Your task to perform on an android device: Find coffee shops on Maps Image 0: 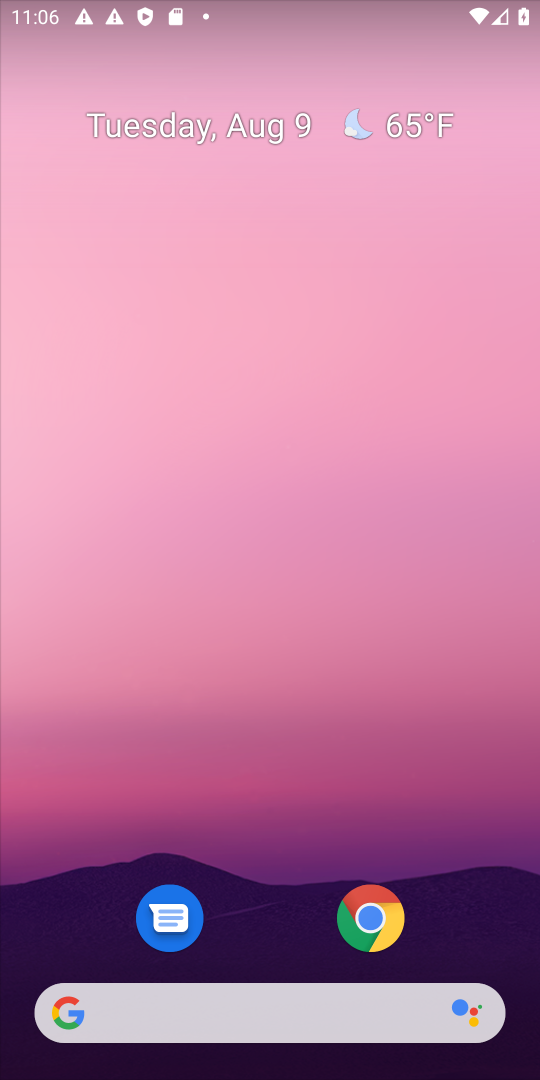
Step 0: drag from (285, 776) to (321, 63)
Your task to perform on an android device: Find coffee shops on Maps Image 1: 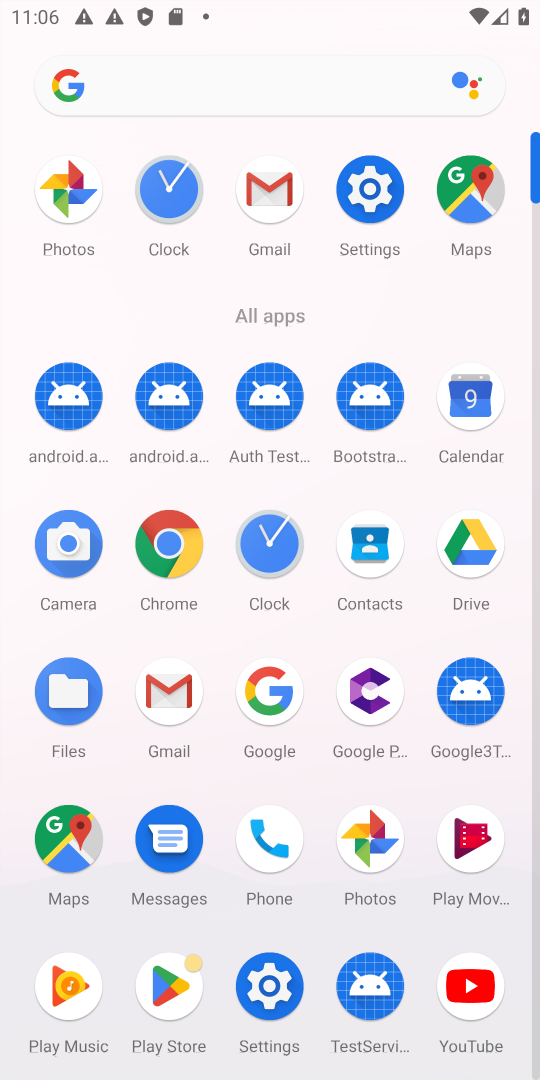
Step 1: click (71, 844)
Your task to perform on an android device: Find coffee shops on Maps Image 2: 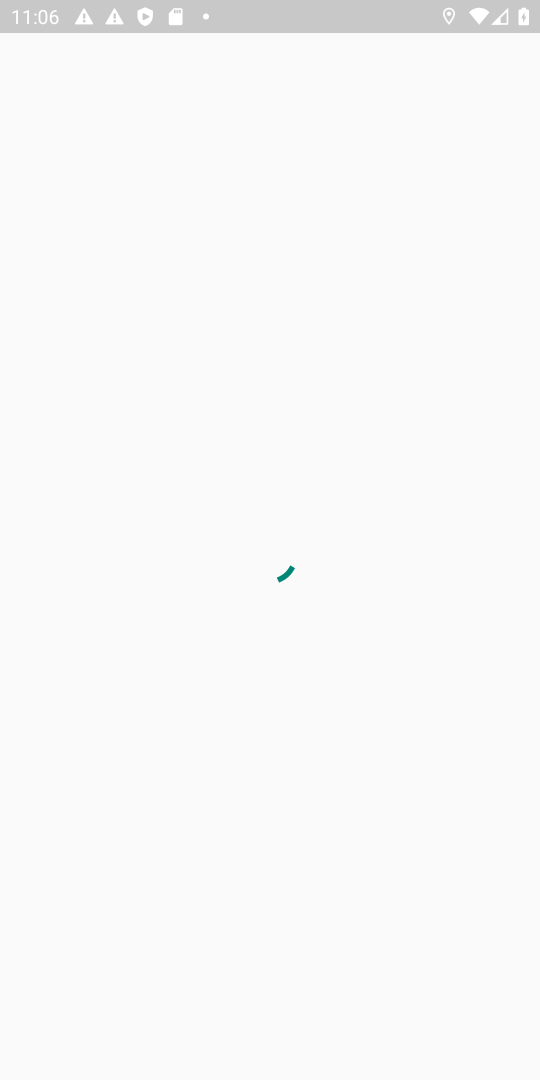
Step 2: press back button
Your task to perform on an android device: Find coffee shops on Maps Image 3: 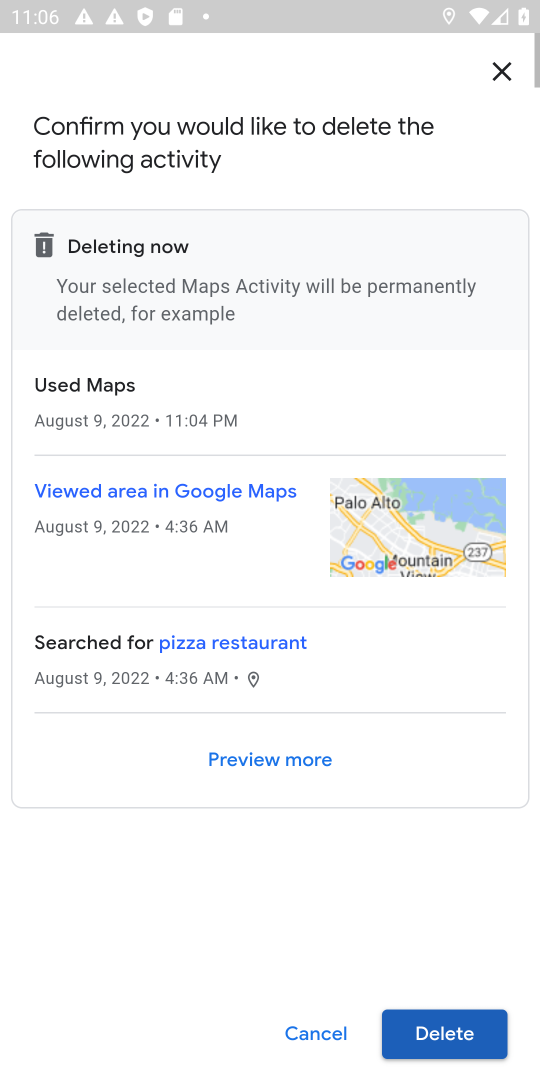
Step 3: press back button
Your task to perform on an android device: Find coffee shops on Maps Image 4: 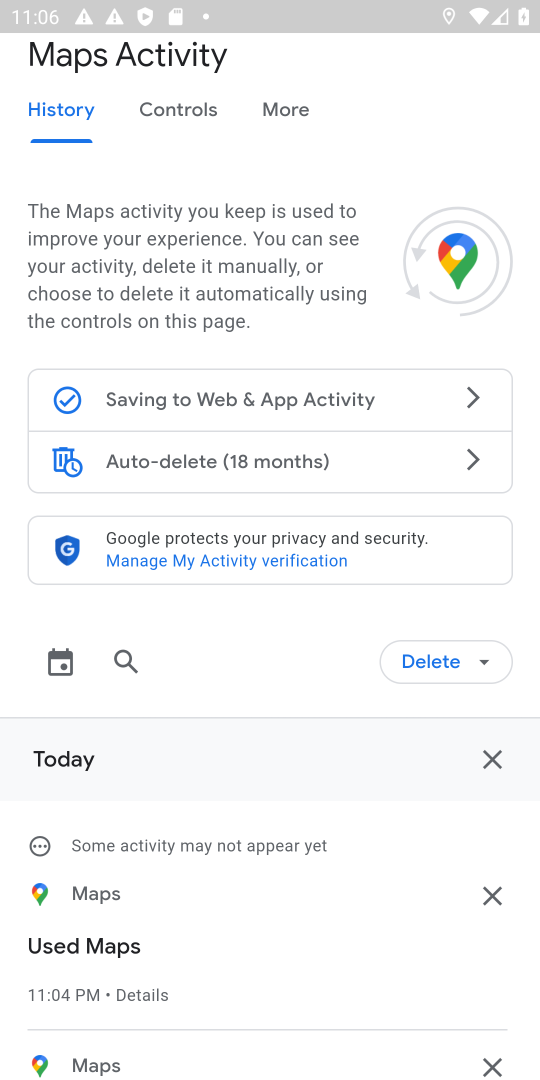
Step 4: press back button
Your task to perform on an android device: Find coffee shops on Maps Image 5: 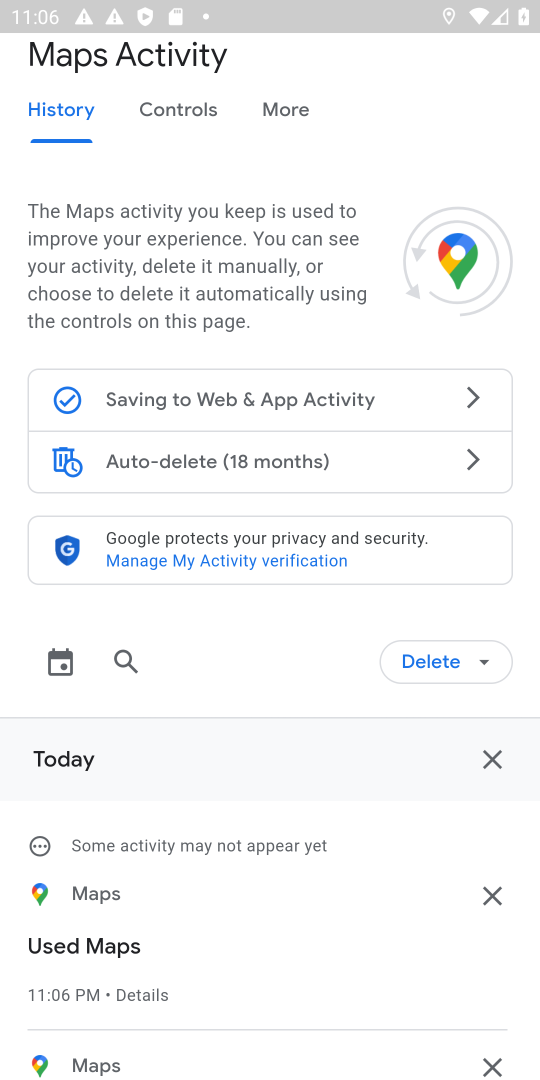
Step 5: press back button
Your task to perform on an android device: Find coffee shops on Maps Image 6: 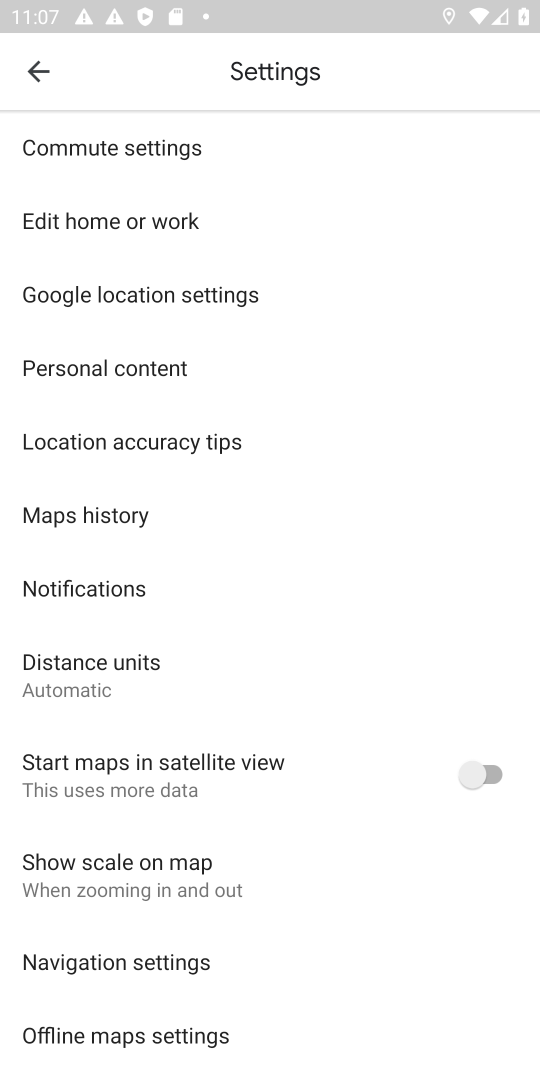
Step 6: press back button
Your task to perform on an android device: Find coffee shops on Maps Image 7: 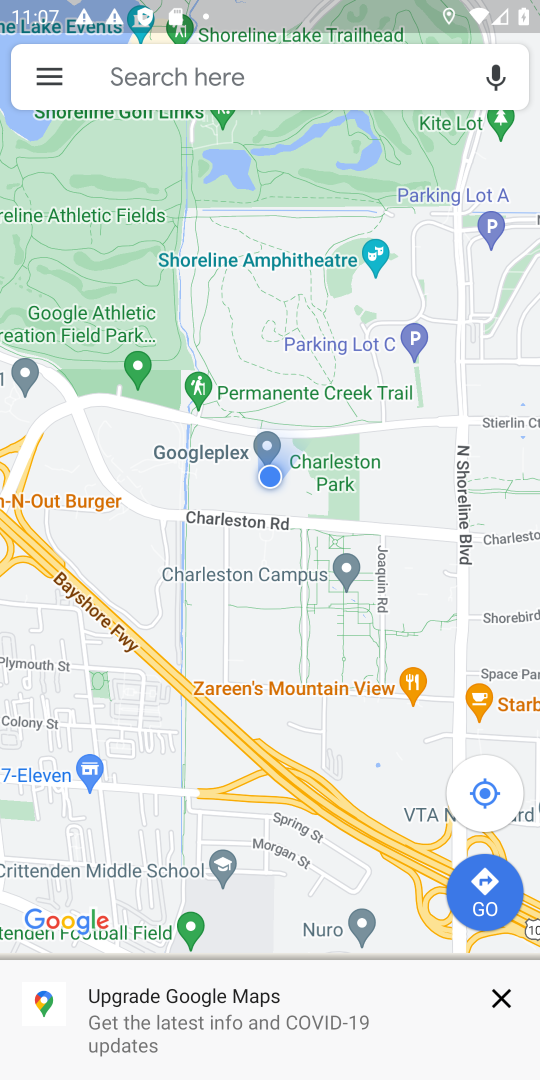
Step 7: click (384, 69)
Your task to perform on an android device: Find coffee shops on Maps Image 8: 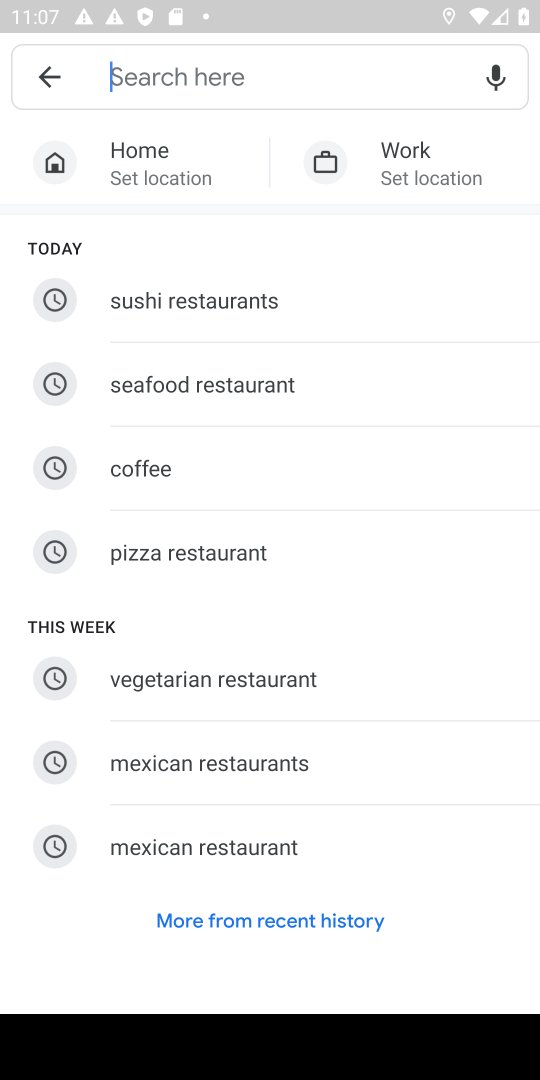
Step 8: type "coffee  shops"
Your task to perform on an android device: Find coffee shops on Maps Image 9: 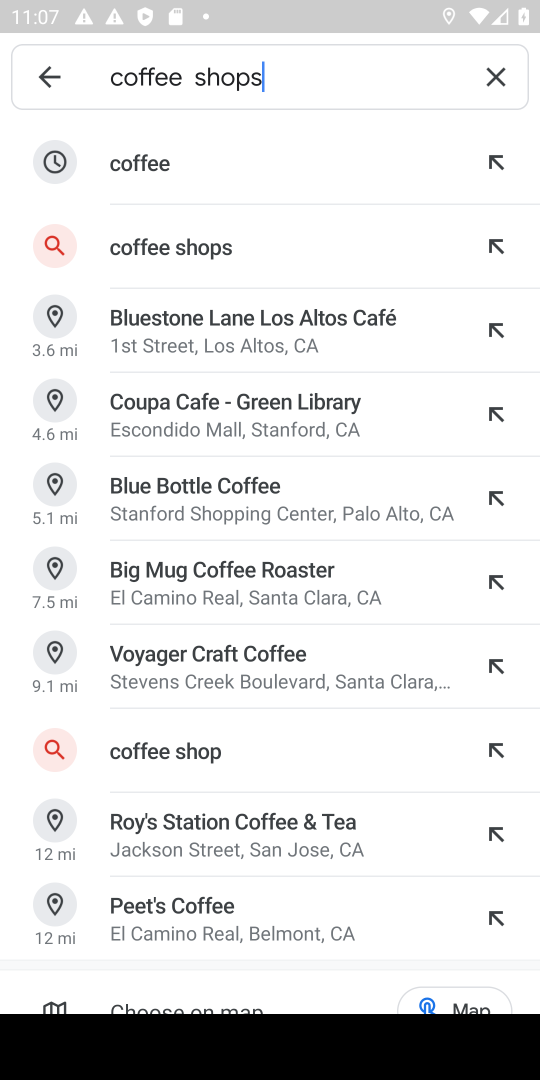
Step 9: click (147, 248)
Your task to perform on an android device: Find coffee shops on Maps Image 10: 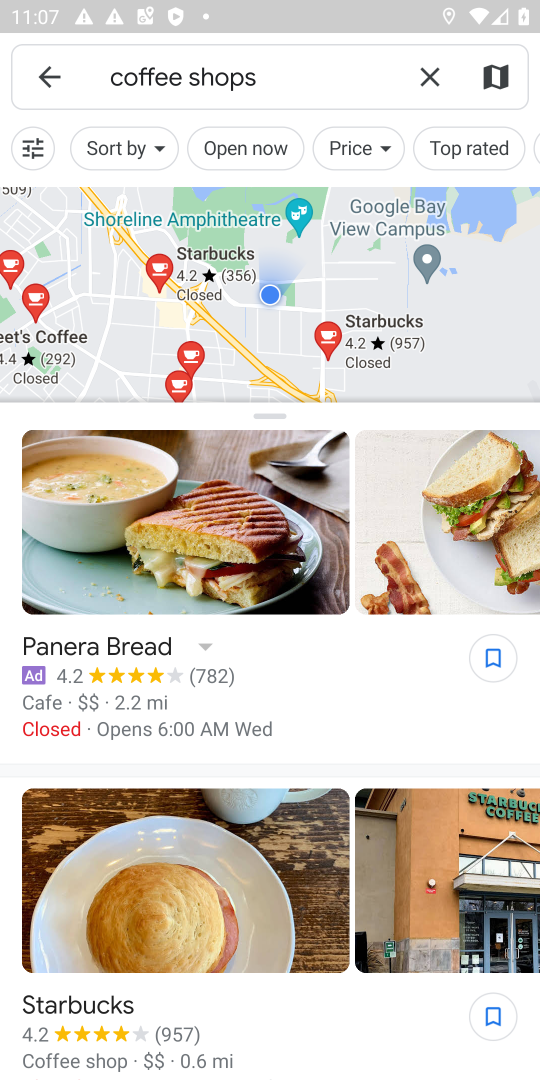
Step 10: task complete